Your task to perform on an android device: turn off airplane mode Image 0: 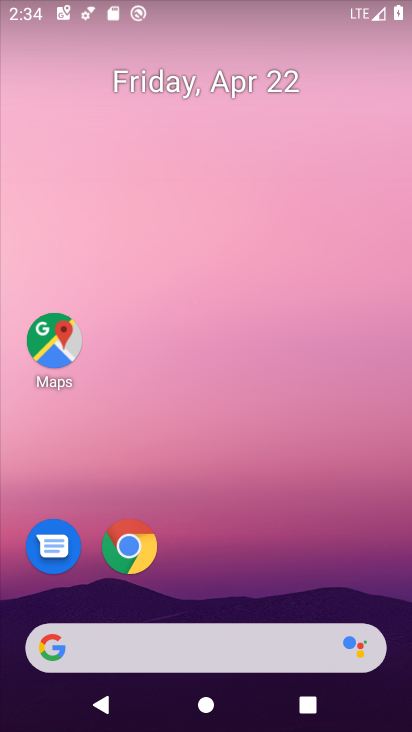
Step 0: drag from (231, 617) to (293, 196)
Your task to perform on an android device: turn off airplane mode Image 1: 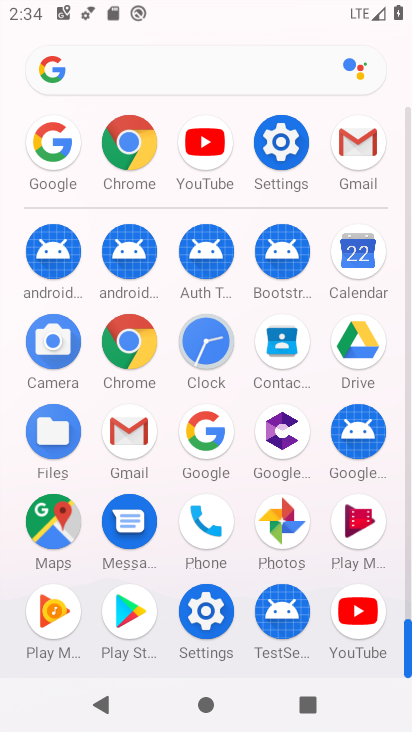
Step 1: click (288, 159)
Your task to perform on an android device: turn off airplane mode Image 2: 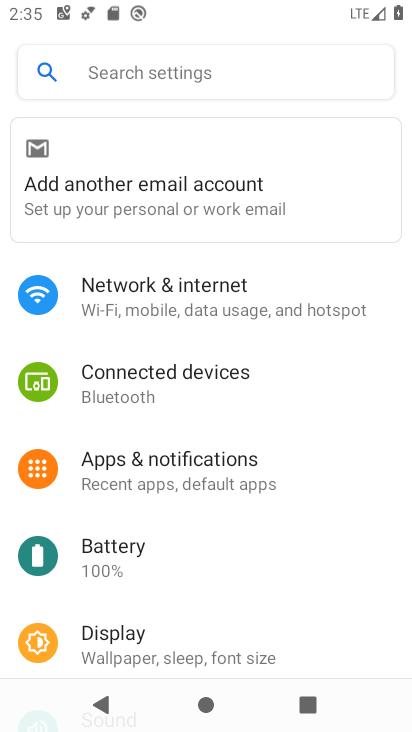
Step 2: click (294, 307)
Your task to perform on an android device: turn off airplane mode Image 3: 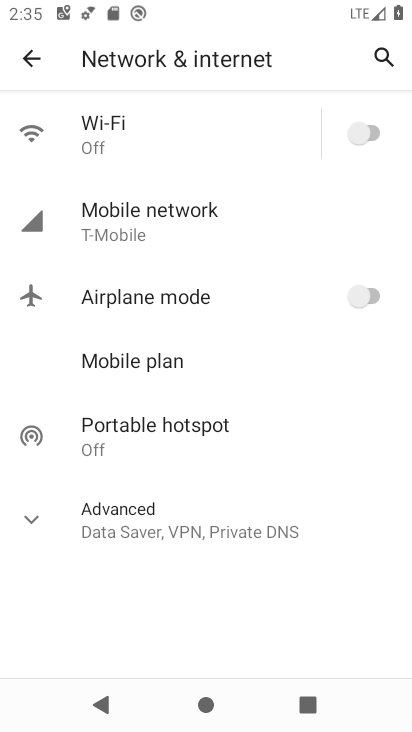
Step 3: click (279, 533)
Your task to perform on an android device: turn off airplane mode Image 4: 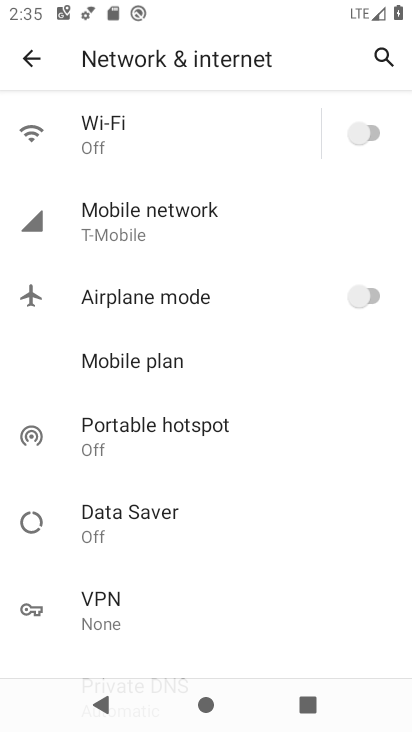
Step 4: task complete